Your task to perform on an android device: turn off location Image 0: 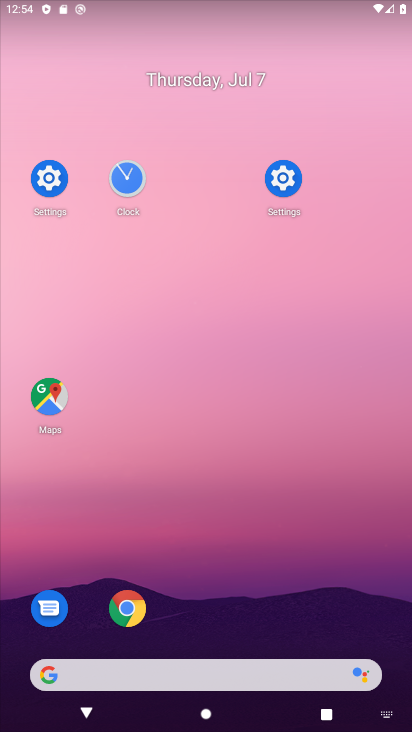
Step 0: click (295, 170)
Your task to perform on an android device: turn off location Image 1: 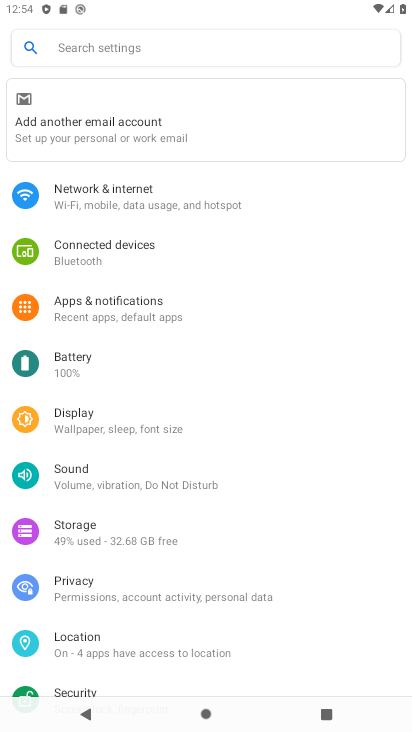
Step 1: click (165, 650)
Your task to perform on an android device: turn off location Image 2: 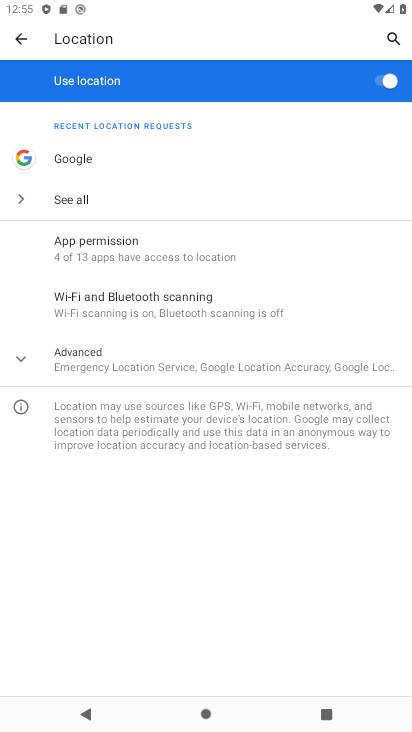
Step 2: click (377, 74)
Your task to perform on an android device: turn off location Image 3: 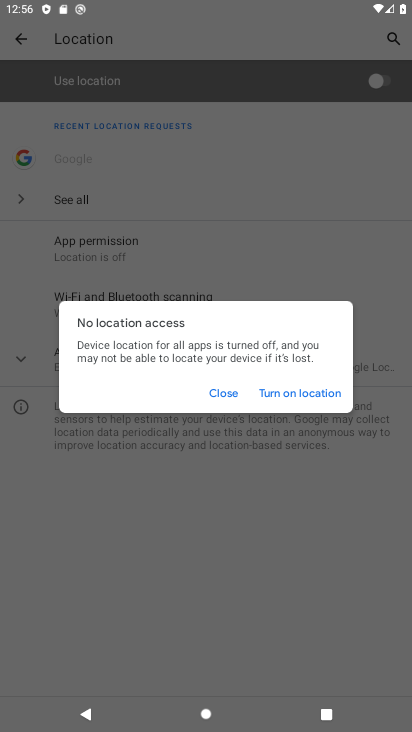
Step 3: click (222, 399)
Your task to perform on an android device: turn off location Image 4: 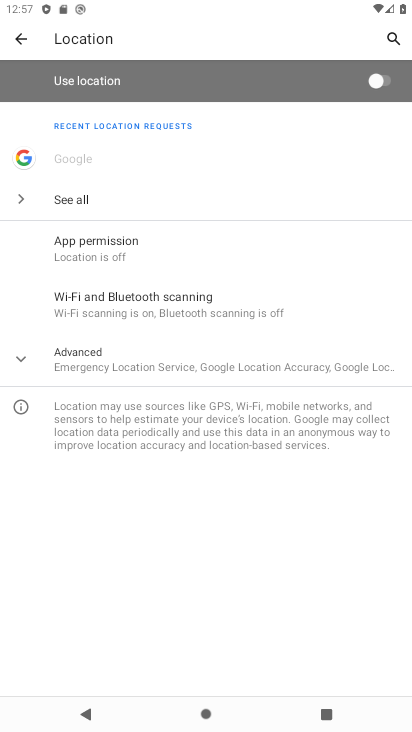
Step 4: task complete